Your task to perform on an android device: open app "Facebook" Image 0: 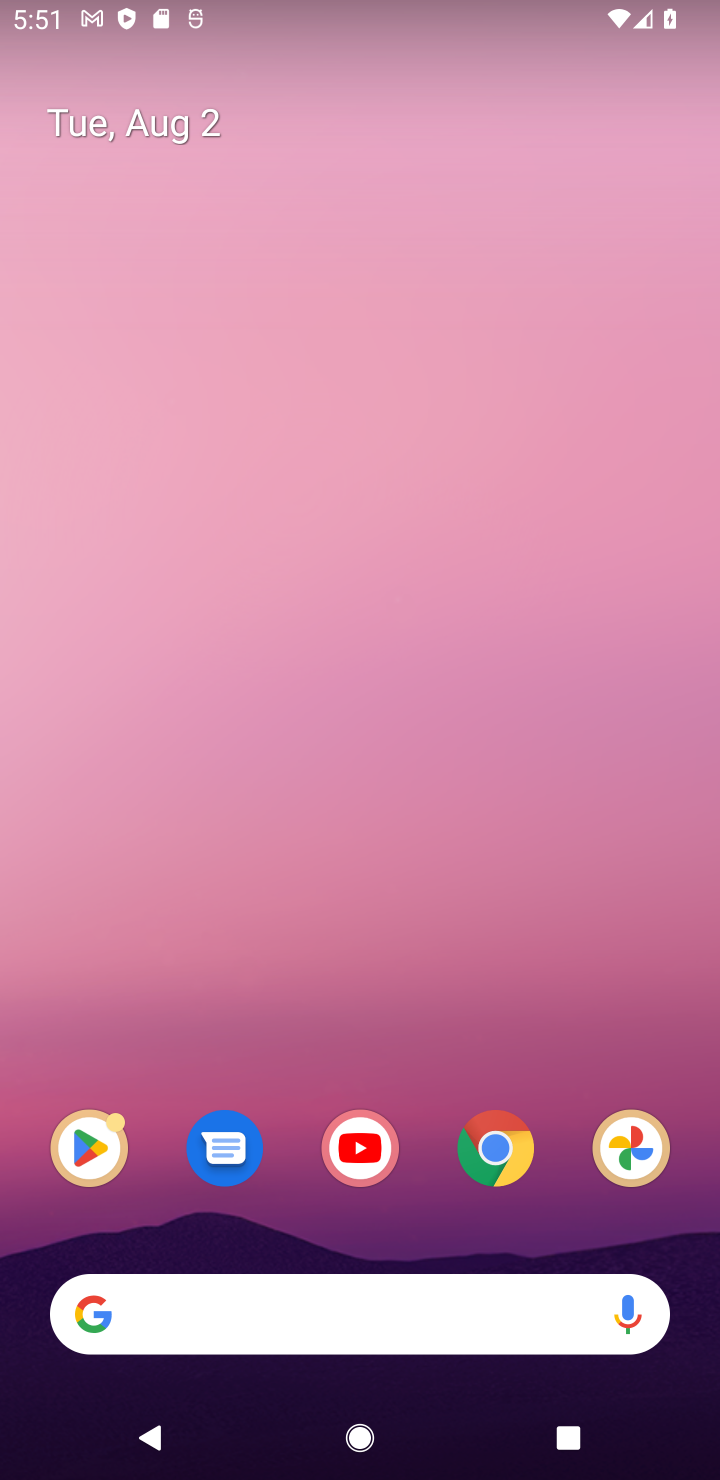
Step 0: drag from (650, 1054) to (379, 5)
Your task to perform on an android device: open app "Facebook" Image 1: 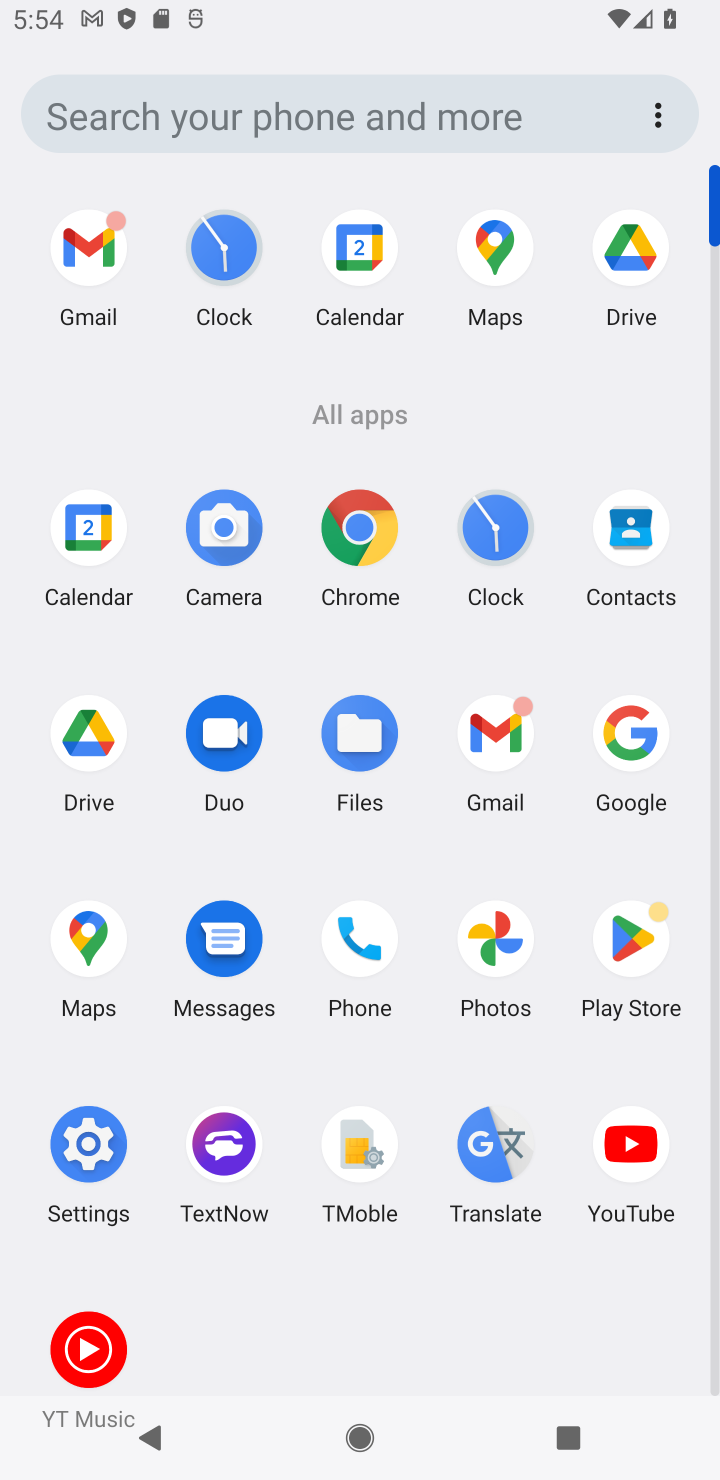
Step 1: click (605, 945)
Your task to perform on an android device: open app "Facebook" Image 2: 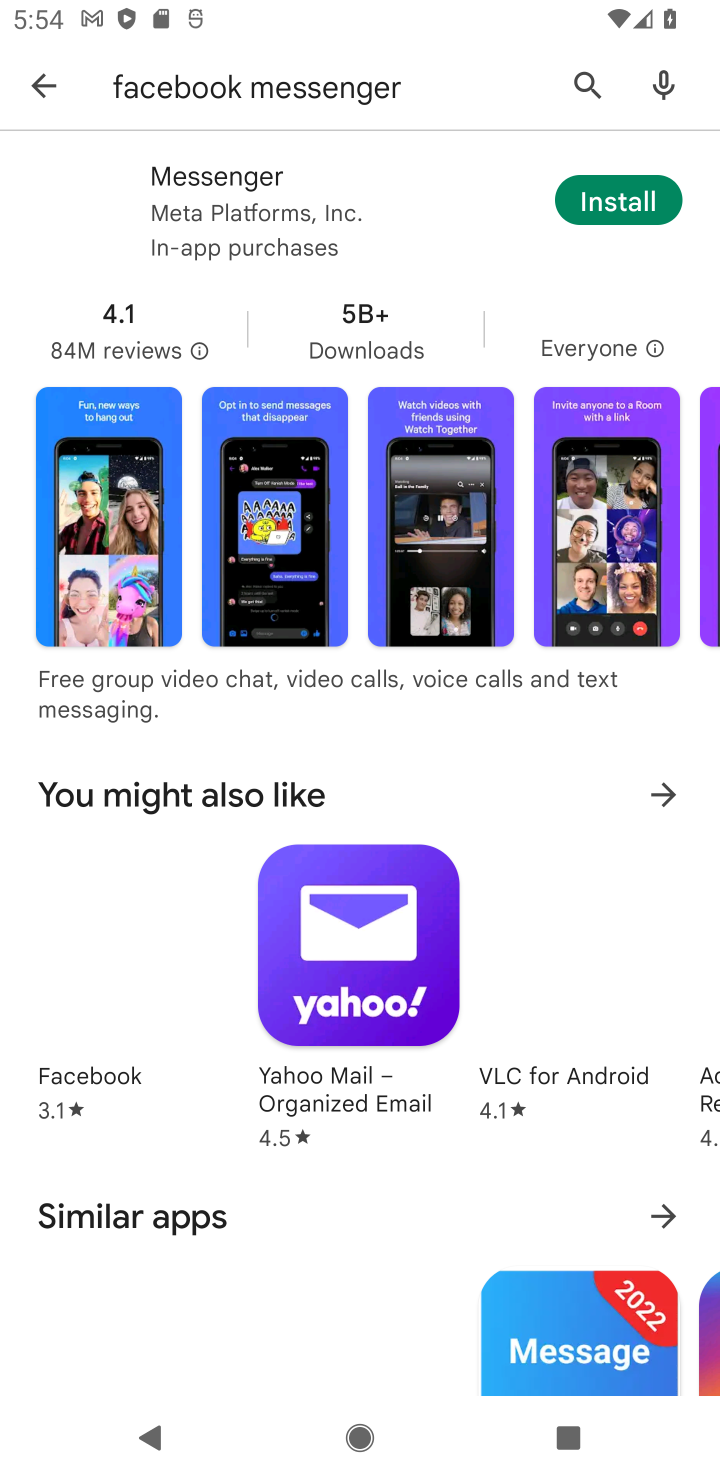
Step 2: press back button
Your task to perform on an android device: open app "Facebook" Image 3: 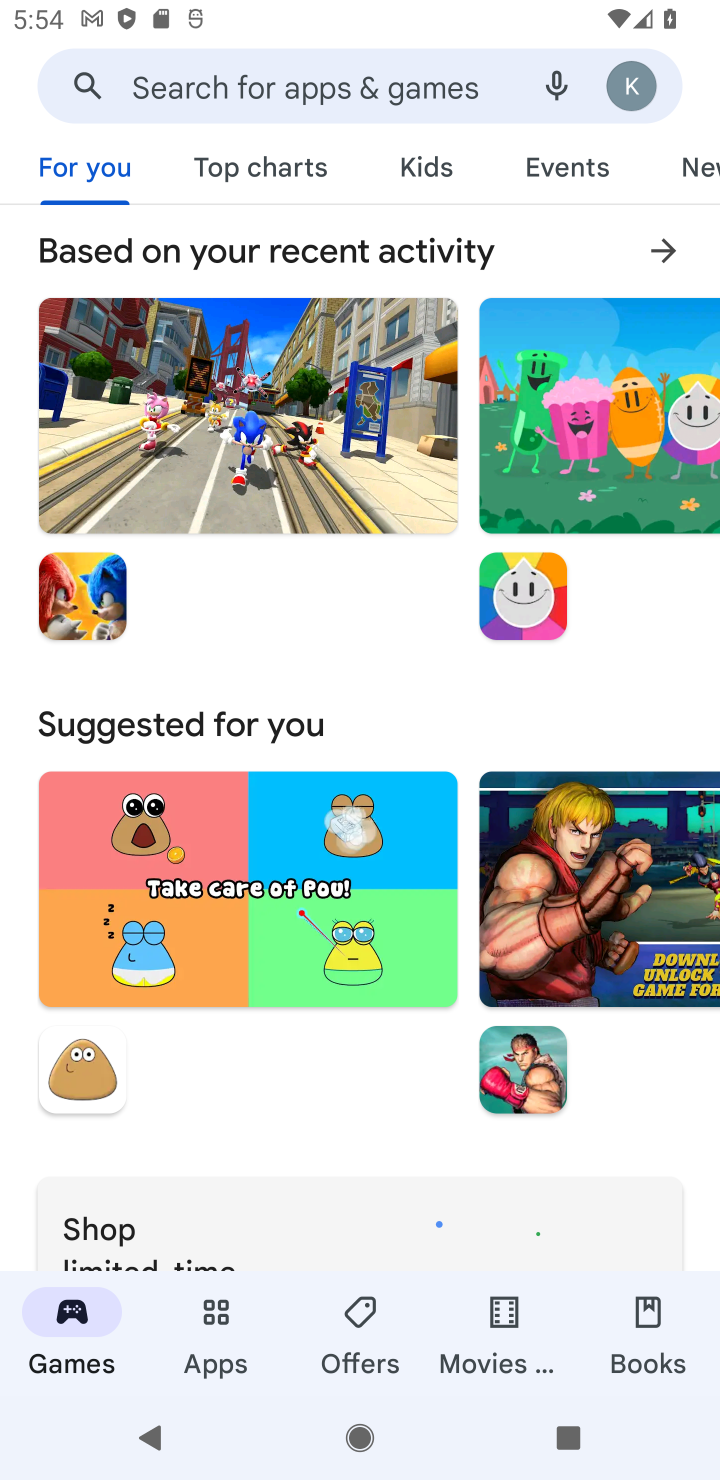
Step 3: click (247, 88)
Your task to perform on an android device: open app "Facebook" Image 4: 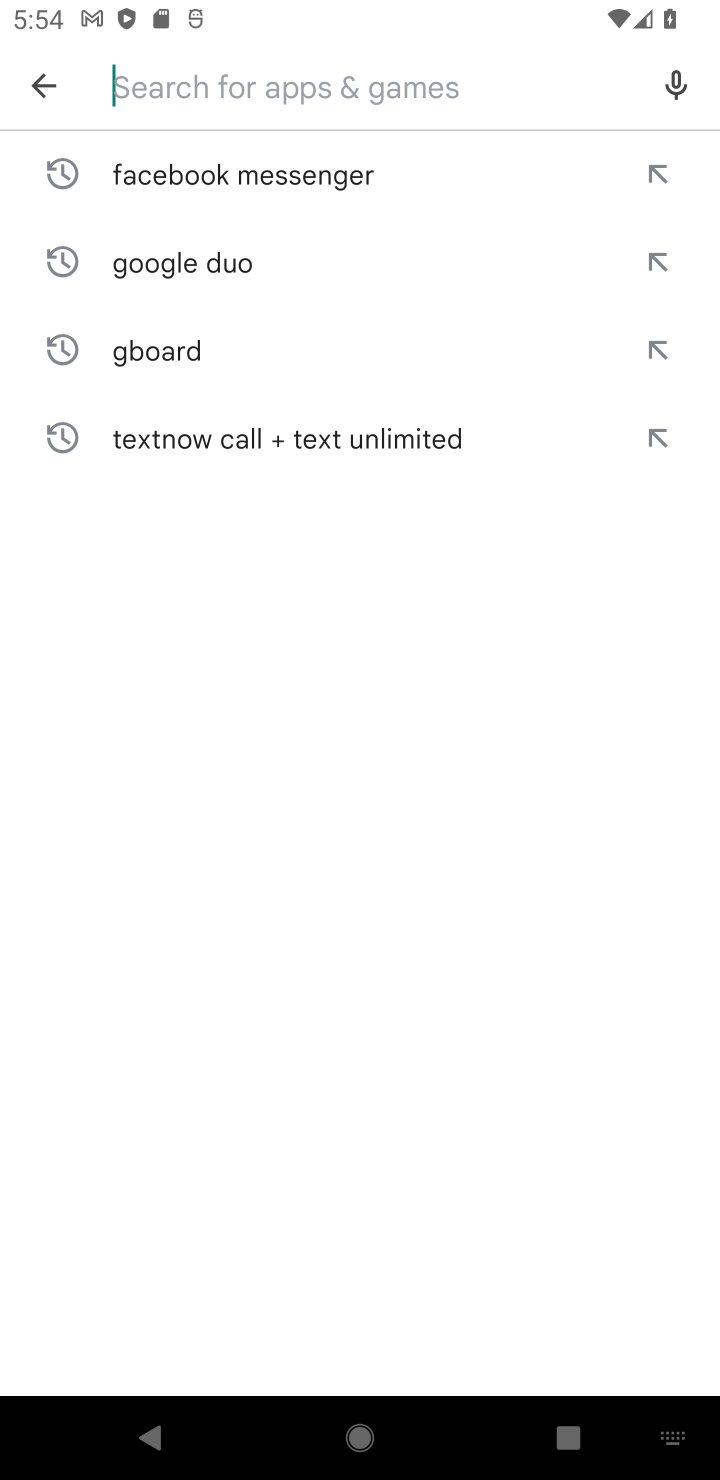
Step 4: type "Facebook"
Your task to perform on an android device: open app "Facebook" Image 5: 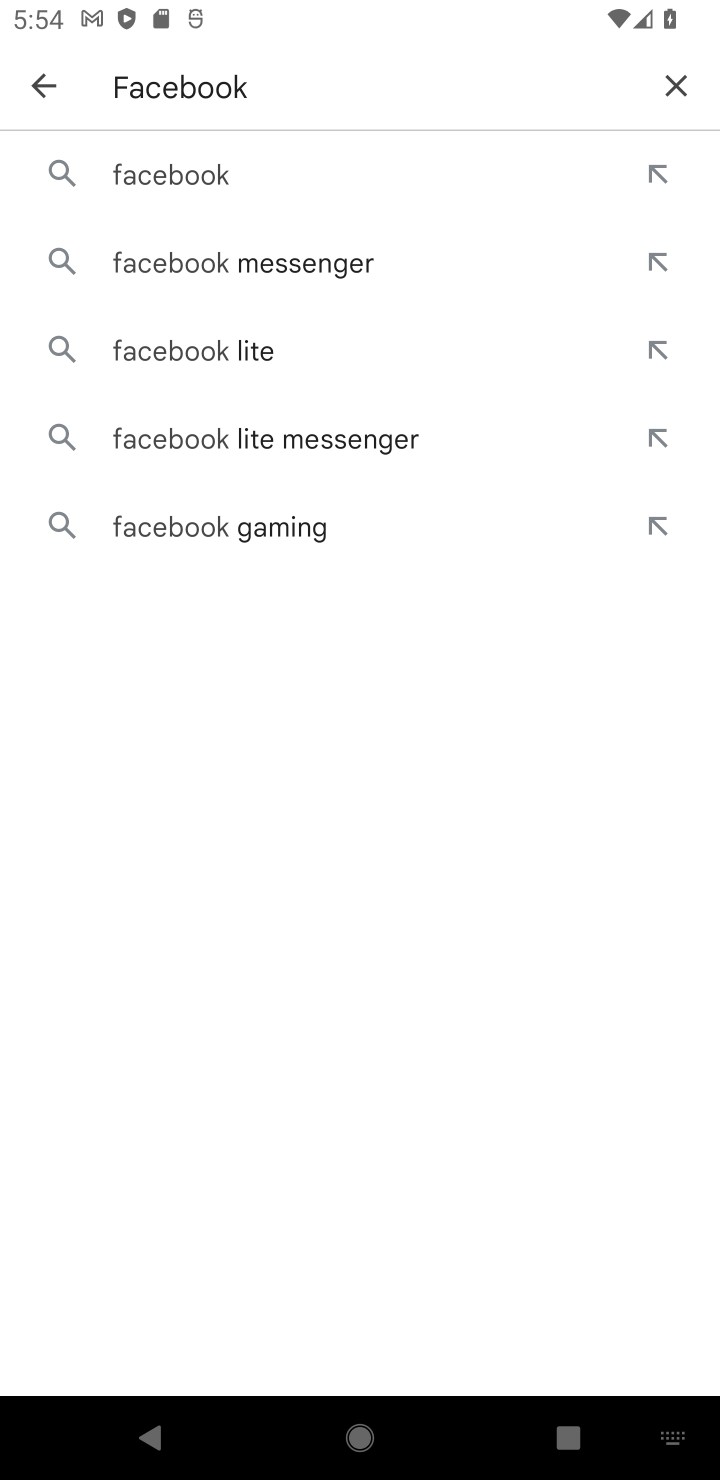
Step 5: click (164, 169)
Your task to perform on an android device: open app "Facebook" Image 6: 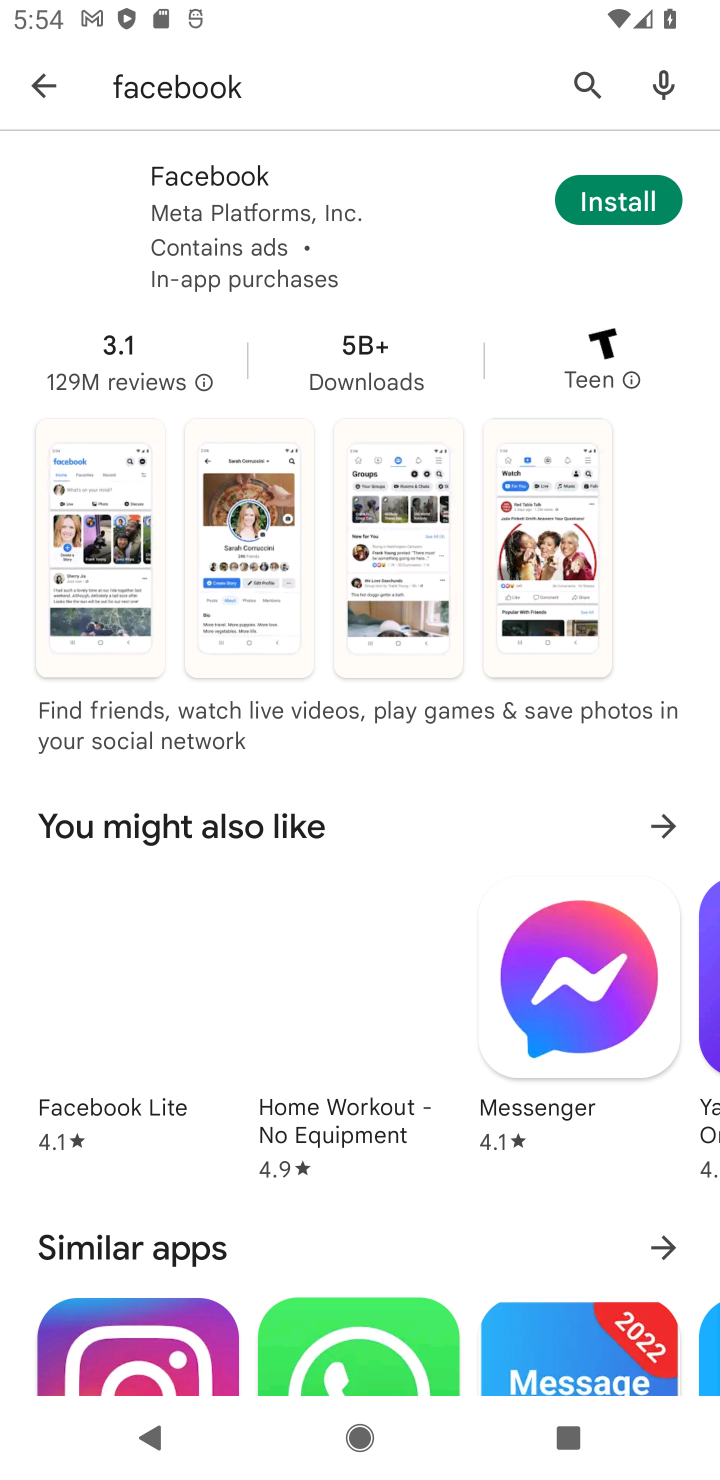
Step 6: task complete